Your task to perform on an android device: Go to CNN.com Image 0: 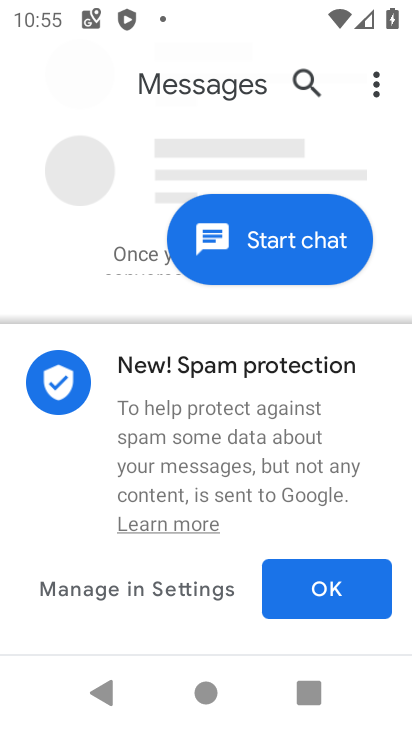
Step 0: press home button
Your task to perform on an android device: Go to CNN.com Image 1: 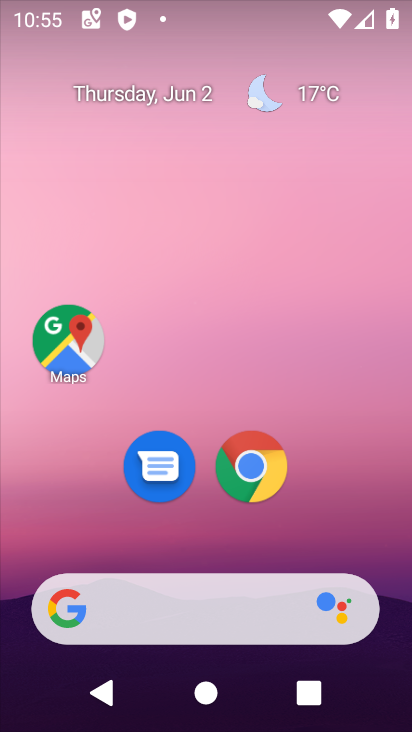
Step 1: click (241, 463)
Your task to perform on an android device: Go to CNN.com Image 2: 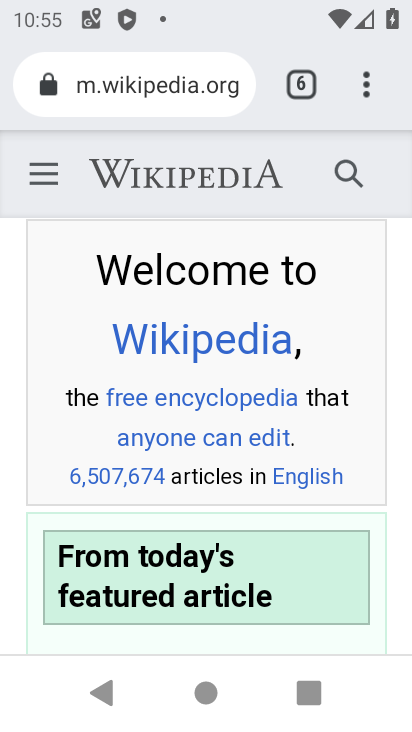
Step 2: click (366, 69)
Your task to perform on an android device: Go to CNN.com Image 3: 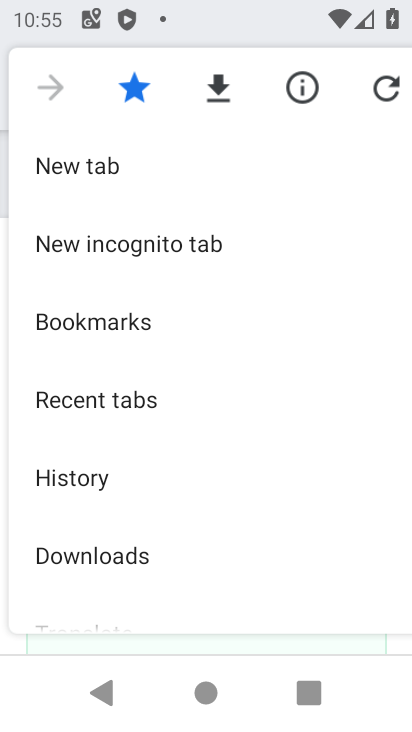
Step 3: click (102, 146)
Your task to perform on an android device: Go to CNN.com Image 4: 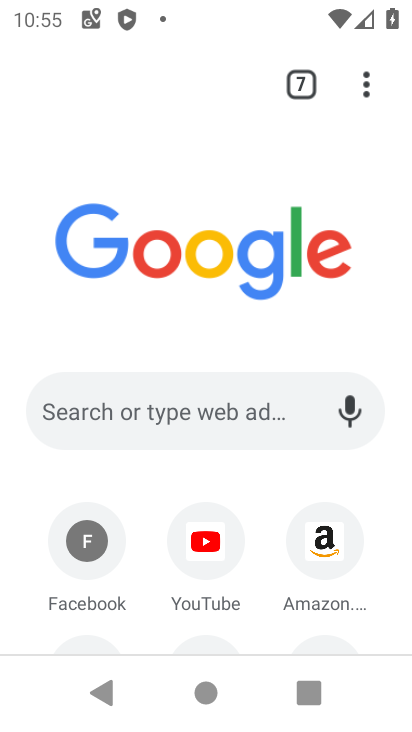
Step 4: click (134, 396)
Your task to perform on an android device: Go to CNN.com Image 5: 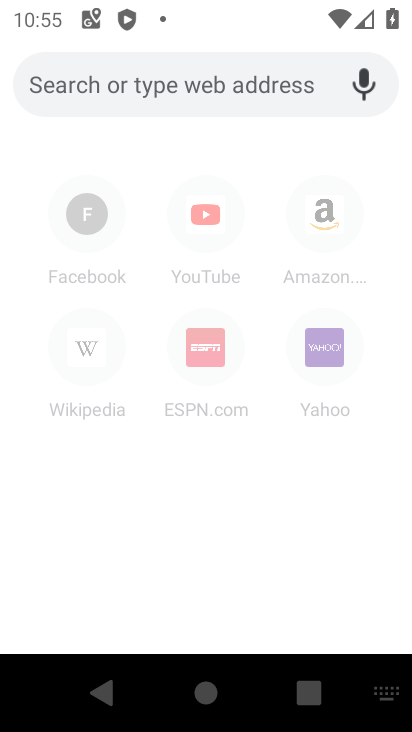
Step 5: type "CNN.com"
Your task to perform on an android device: Go to CNN.com Image 6: 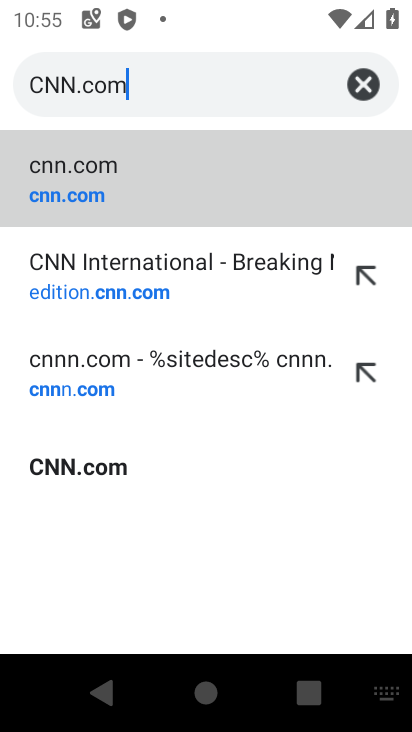
Step 6: click (180, 172)
Your task to perform on an android device: Go to CNN.com Image 7: 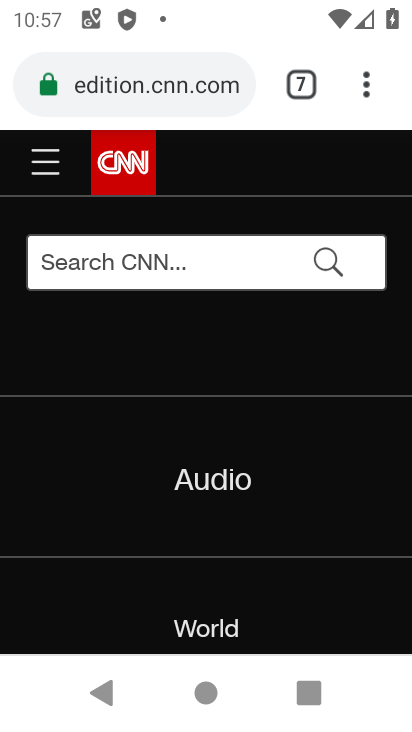
Step 7: task complete